Your task to perform on an android device: Show me recent news Image 0: 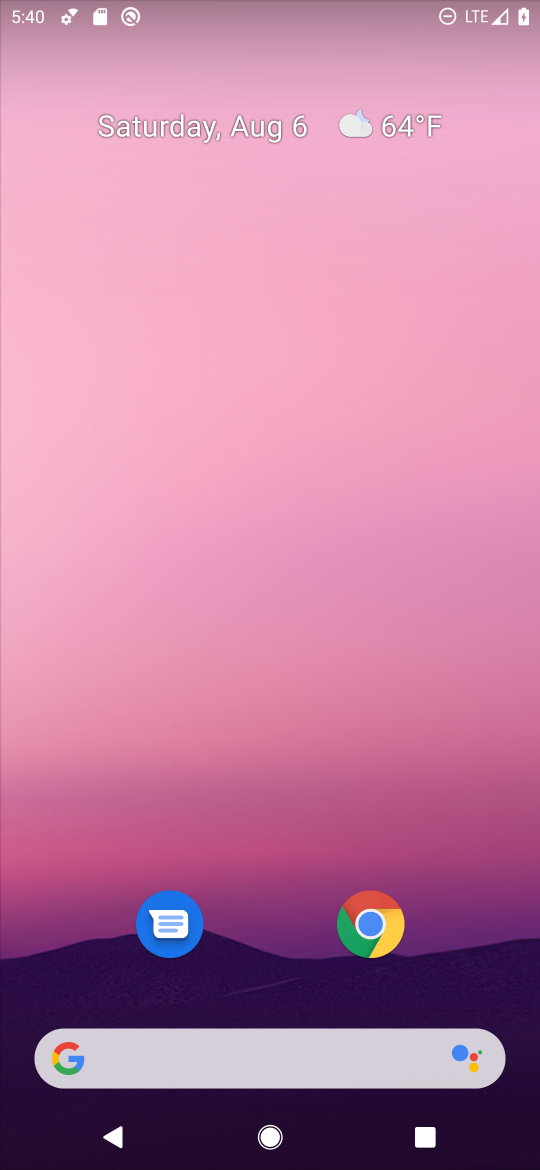
Step 0: drag from (24, 512) to (530, 664)
Your task to perform on an android device: Show me recent news Image 1: 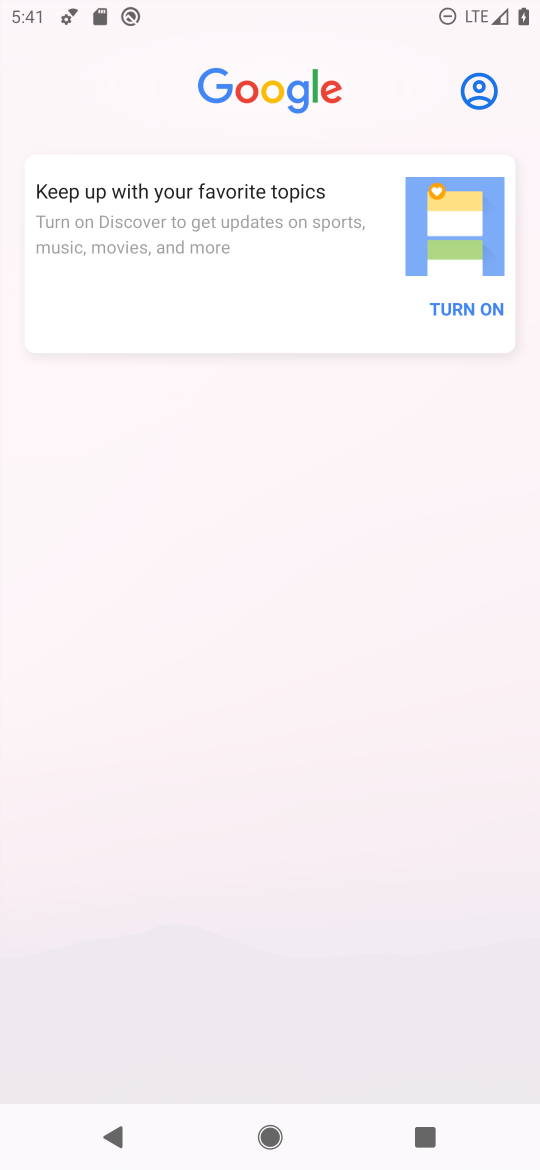
Step 1: click (482, 296)
Your task to perform on an android device: Show me recent news Image 2: 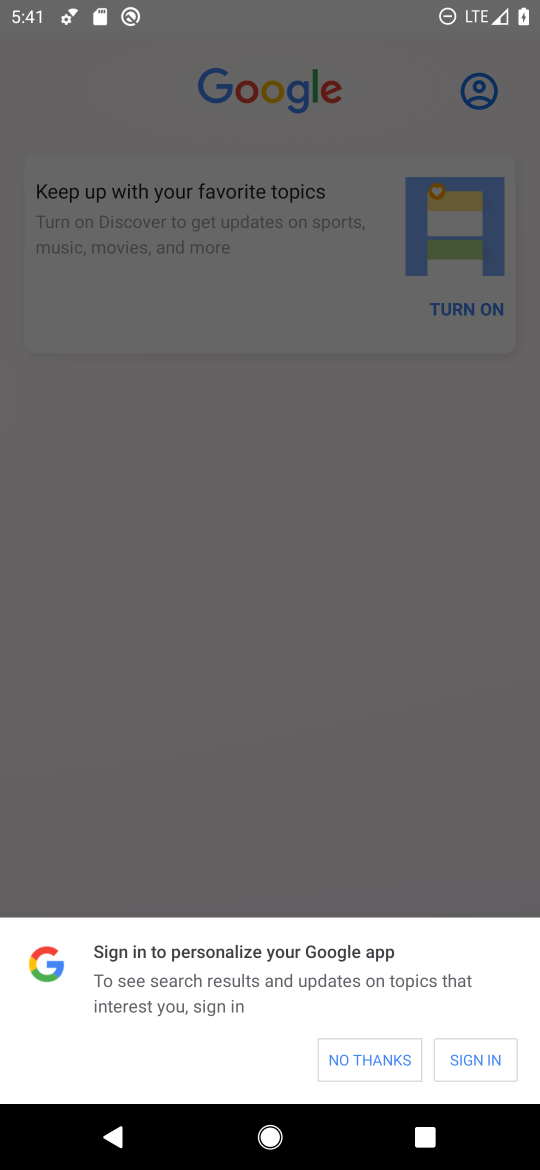
Step 2: click (390, 1062)
Your task to perform on an android device: Show me recent news Image 3: 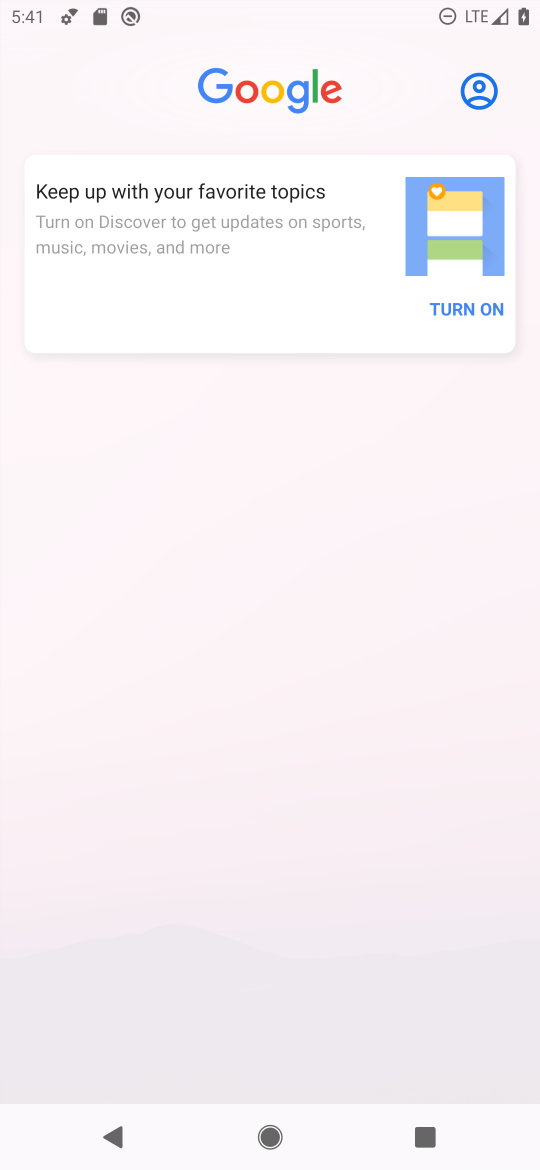
Step 3: task complete